Your task to perform on an android device: Go to Android settings Image 0: 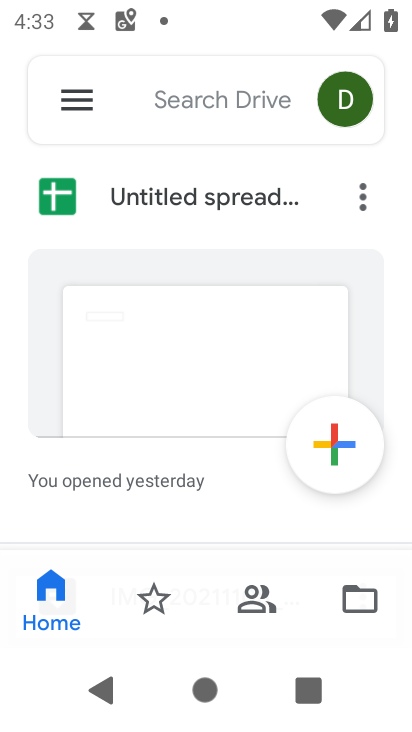
Step 0: press home button
Your task to perform on an android device: Go to Android settings Image 1: 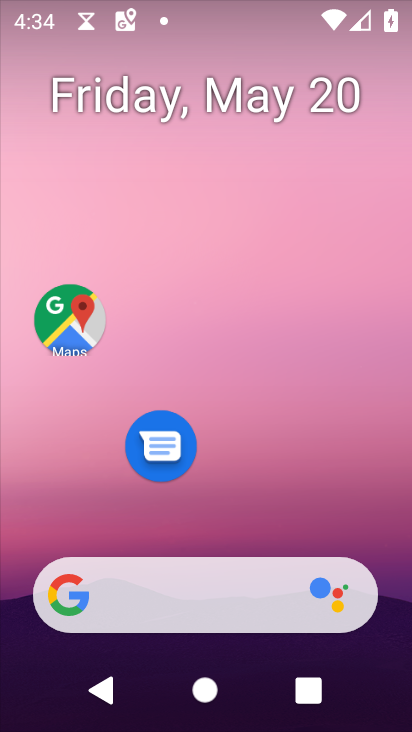
Step 1: drag from (272, 429) to (294, 50)
Your task to perform on an android device: Go to Android settings Image 2: 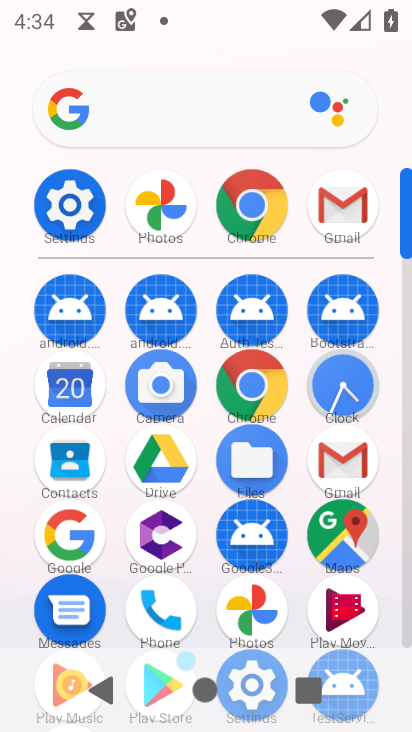
Step 2: drag from (194, 510) to (211, 286)
Your task to perform on an android device: Go to Android settings Image 3: 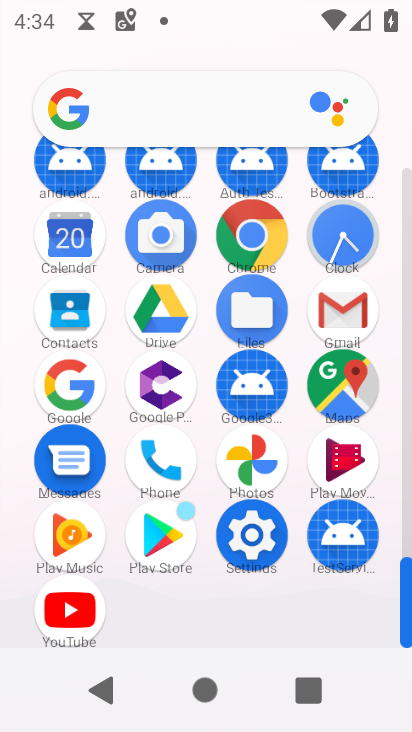
Step 3: click (241, 540)
Your task to perform on an android device: Go to Android settings Image 4: 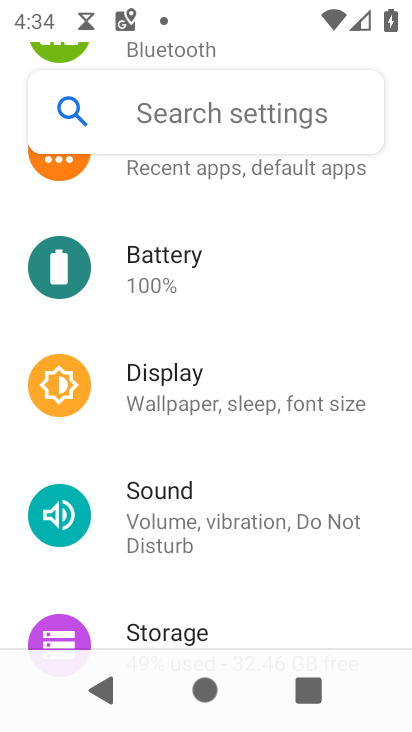
Step 4: drag from (180, 509) to (212, 314)
Your task to perform on an android device: Go to Android settings Image 5: 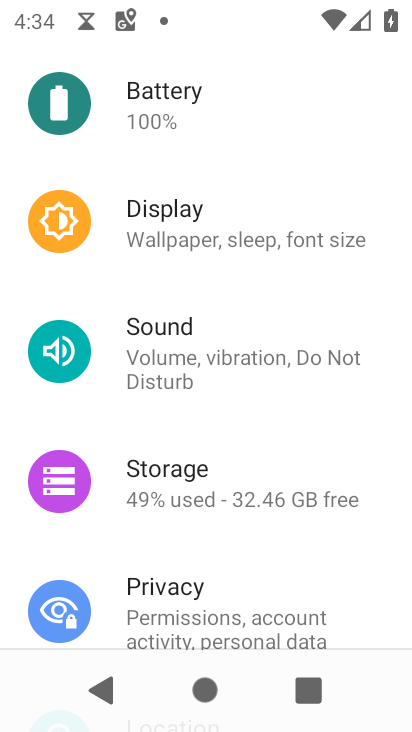
Step 5: drag from (196, 513) to (247, 164)
Your task to perform on an android device: Go to Android settings Image 6: 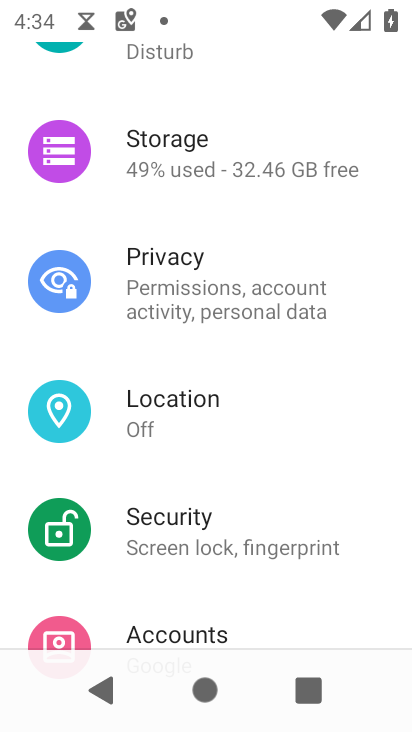
Step 6: drag from (221, 524) to (279, 130)
Your task to perform on an android device: Go to Android settings Image 7: 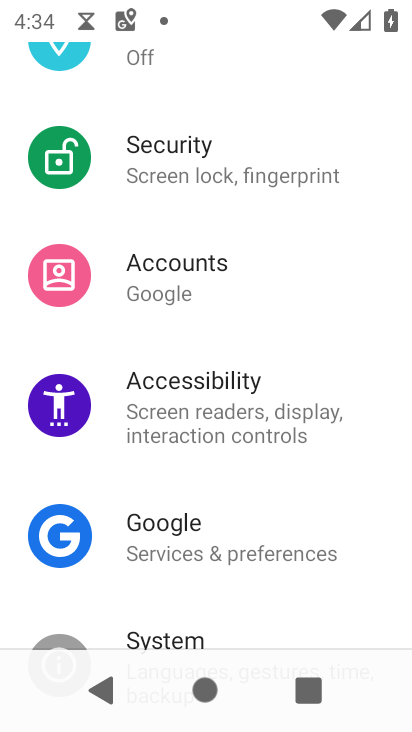
Step 7: drag from (254, 559) to (291, 134)
Your task to perform on an android device: Go to Android settings Image 8: 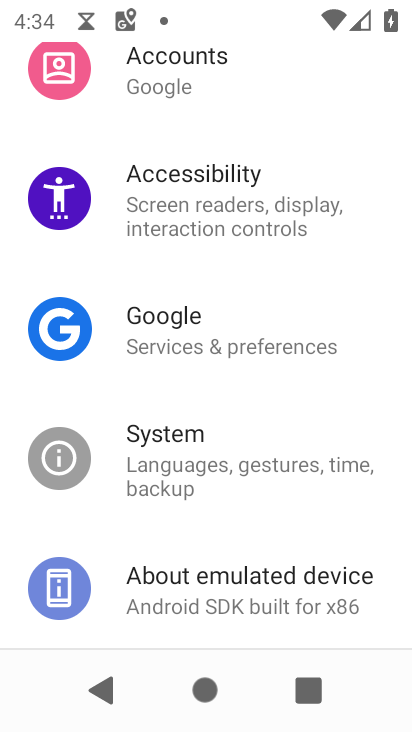
Step 8: click (227, 585)
Your task to perform on an android device: Go to Android settings Image 9: 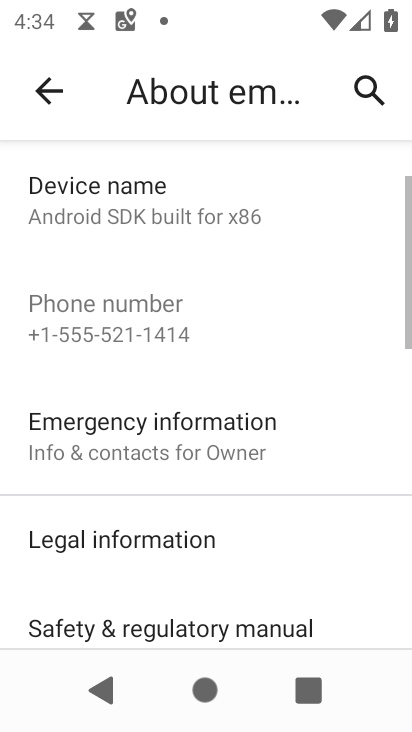
Step 9: drag from (184, 533) to (223, 206)
Your task to perform on an android device: Go to Android settings Image 10: 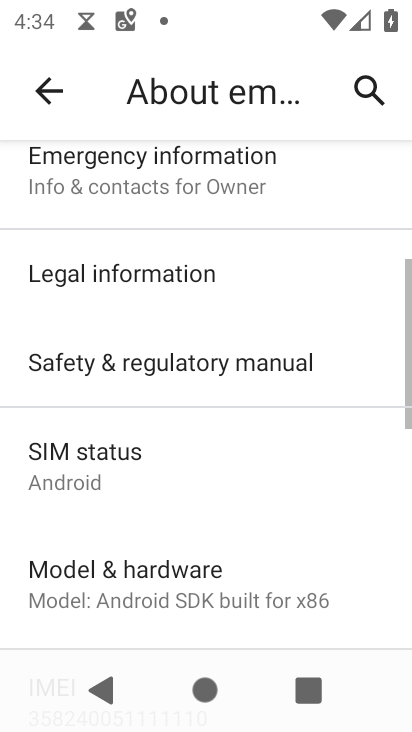
Step 10: drag from (195, 534) to (220, 212)
Your task to perform on an android device: Go to Android settings Image 11: 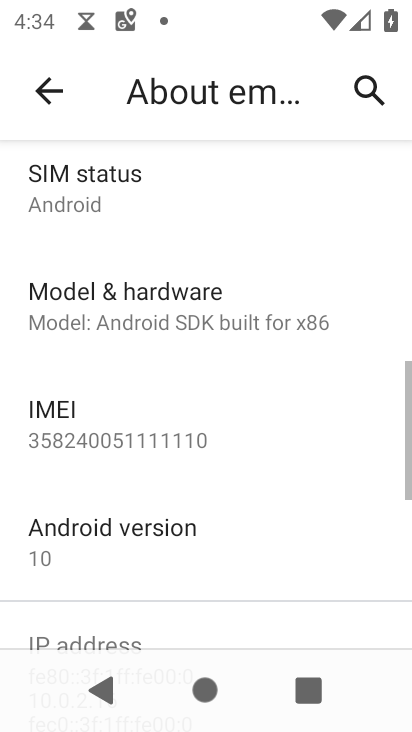
Step 11: click (158, 543)
Your task to perform on an android device: Go to Android settings Image 12: 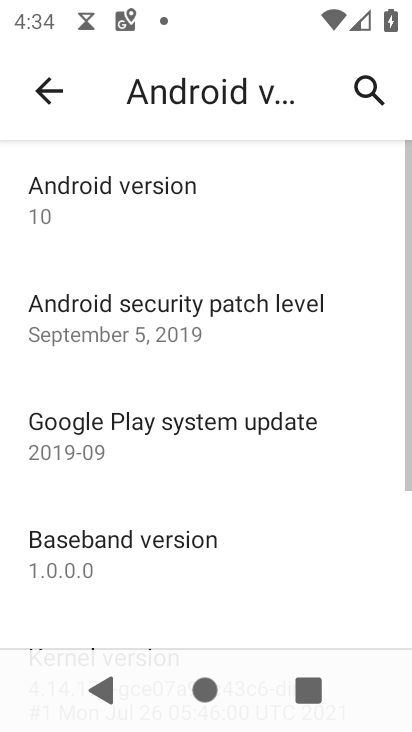
Step 12: task complete